Your task to perform on an android device: turn on the 24-hour format for clock Image 0: 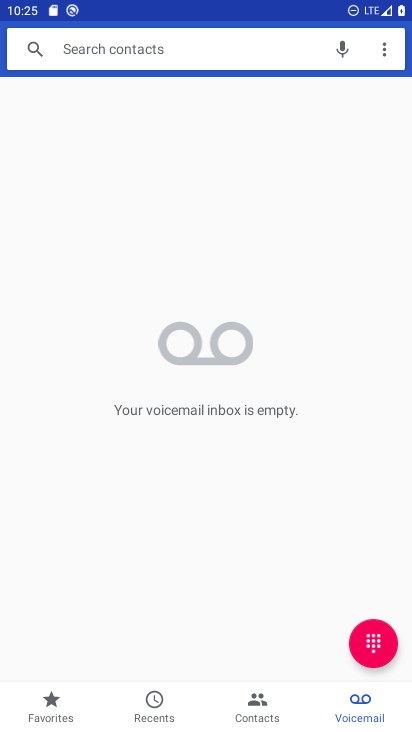
Step 0: press home button
Your task to perform on an android device: turn on the 24-hour format for clock Image 1: 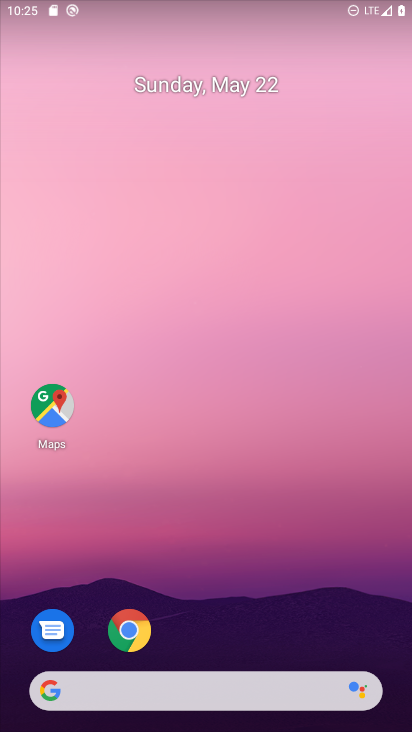
Step 1: drag from (189, 695) to (316, 107)
Your task to perform on an android device: turn on the 24-hour format for clock Image 2: 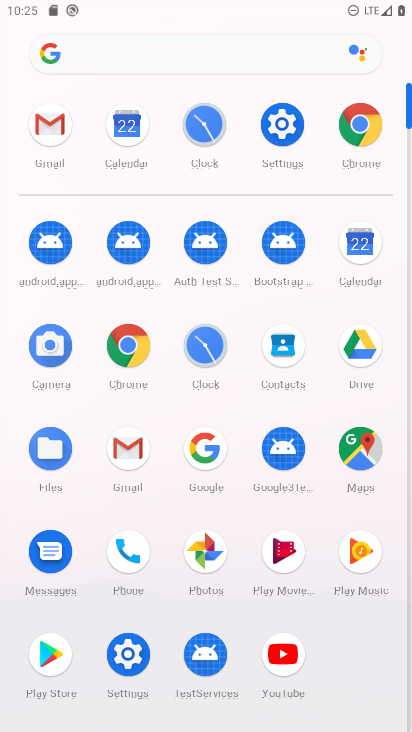
Step 2: click (208, 141)
Your task to perform on an android device: turn on the 24-hour format for clock Image 3: 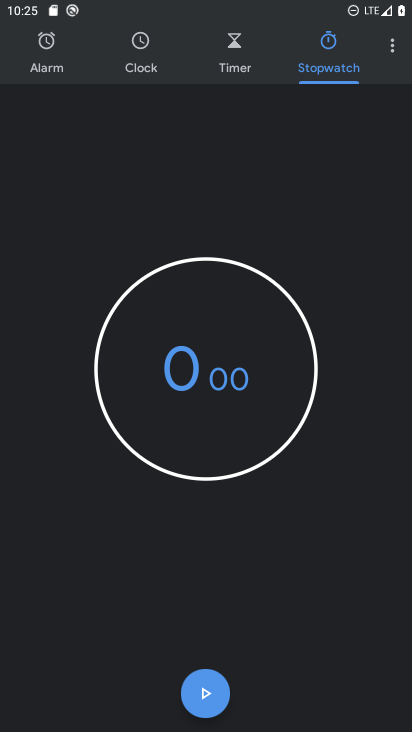
Step 3: click (394, 52)
Your task to perform on an android device: turn on the 24-hour format for clock Image 4: 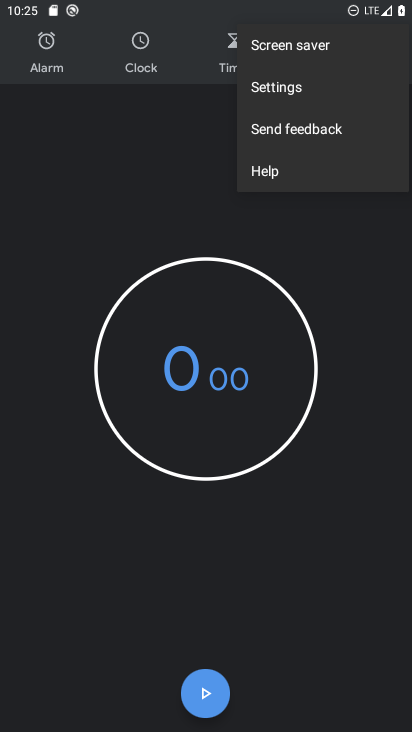
Step 4: click (312, 93)
Your task to perform on an android device: turn on the 24-hour format for clock Image 5: 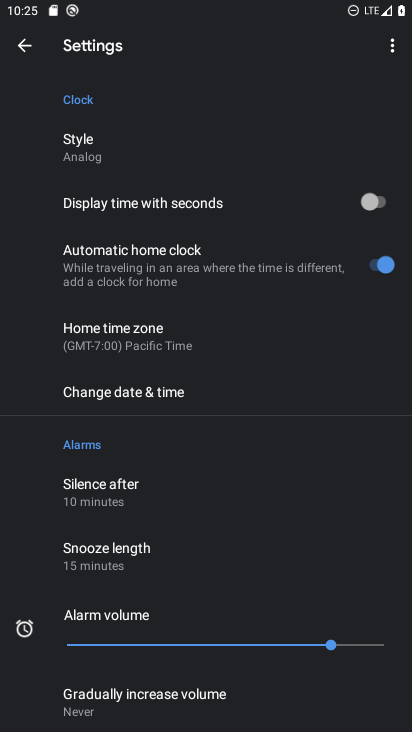
Step 5: click (183, 394)
Your task to perform on an android device: turn on the 24-hour format for clock Image 6: 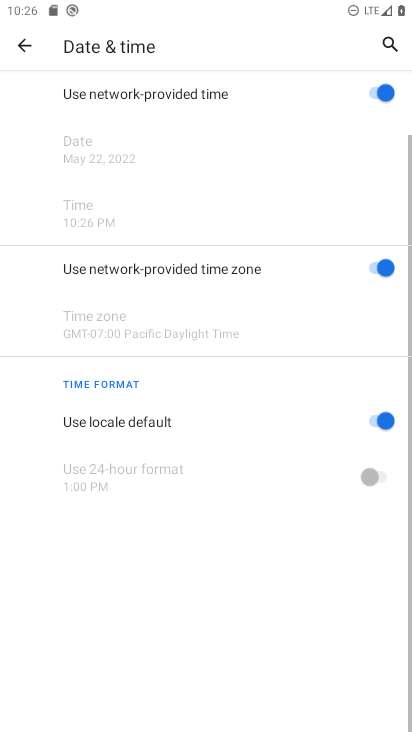
Step 6: click (374, 419)
Your task to perform on an android device: turn on the 24-hour format for clock Image 7: 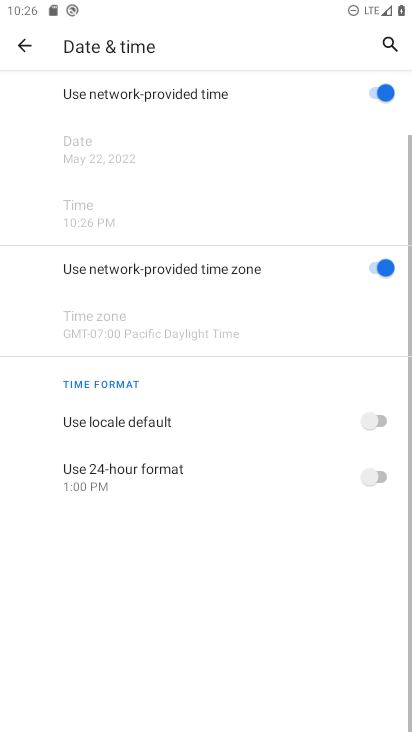
Step 7: click (382, 477)
Your task to perform on an android device: turn on the 24-hour format for clock Image 8: 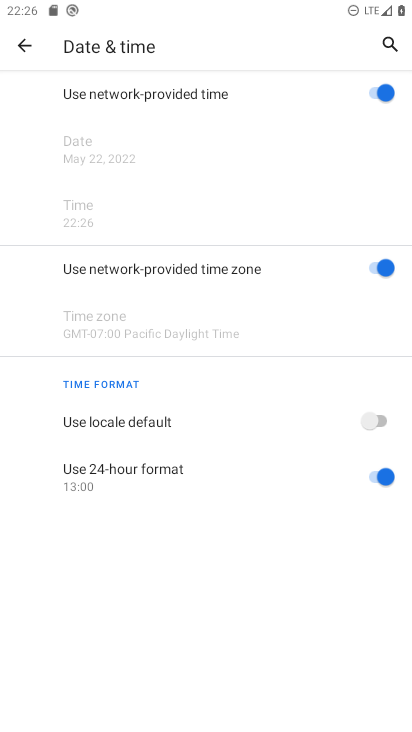
Step 8: task complete